Your task to perform on an android device: open app "Etsy: Buy & Sell Unique Items" (install if not already installed) Image 0: 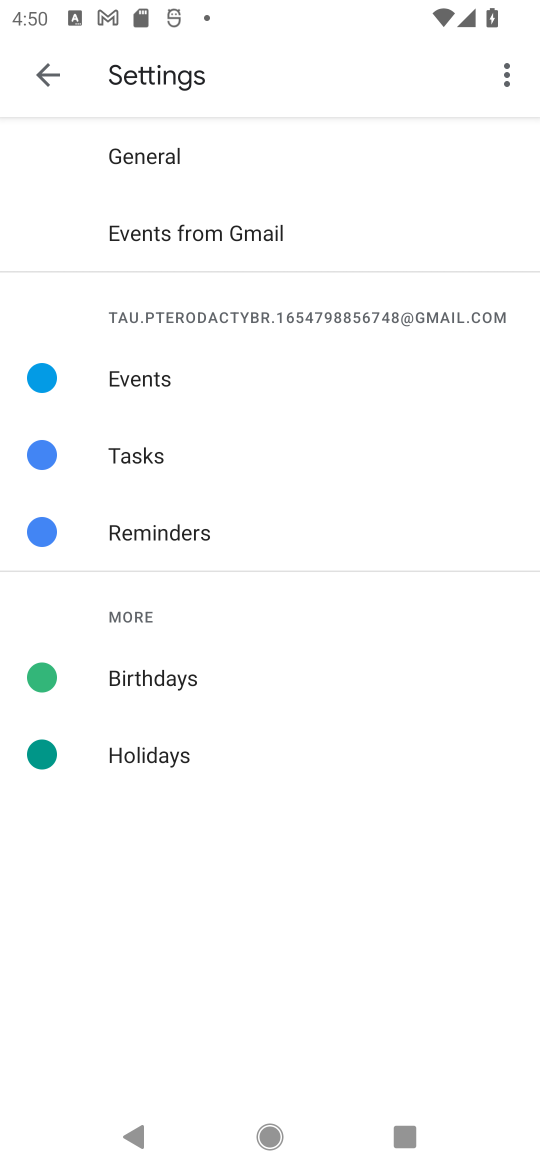
Step 0: press home button
Your task to perform on an android device: open app "Etsy: Buy & Sell Unique Items" (install if not already installed) Image 1: 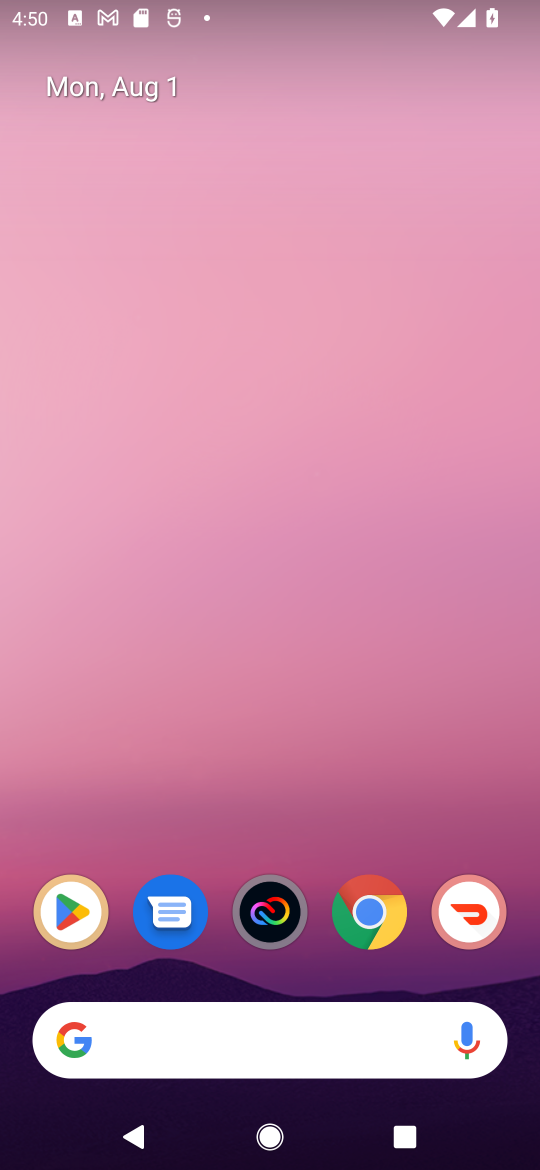
Step 1: click (68, 913)
Your task to perform on an android device: open app "Etsy: Buy & Sell Unique Items" (install if not already installed) Image 2: 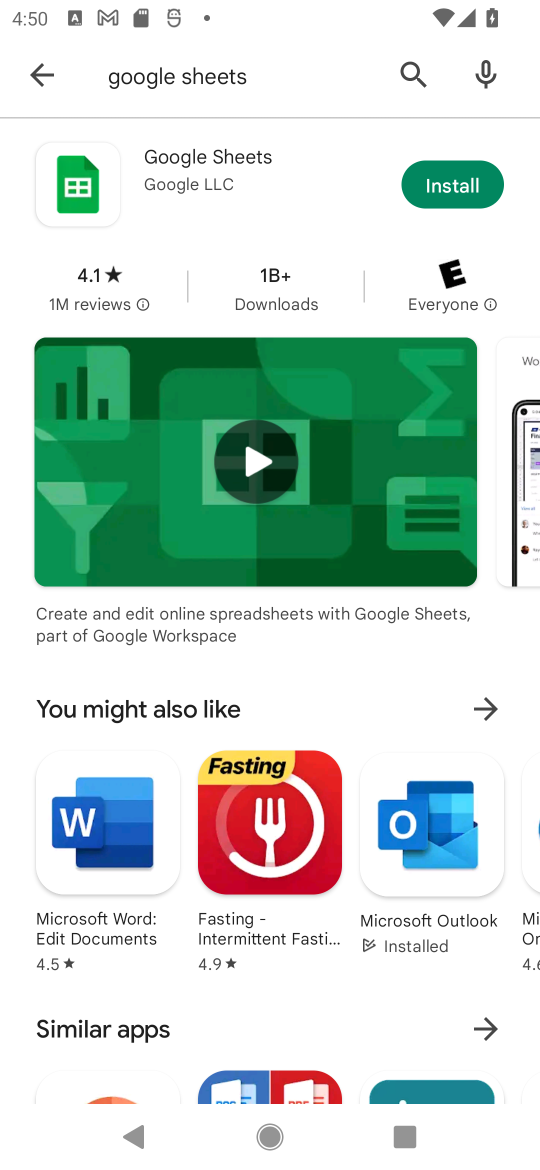
Step 2: click (401, 74)
Your task to perform on an android device: open app "Etsy: Buy & Sell Unique Items" (install if not already installed) Image 3: 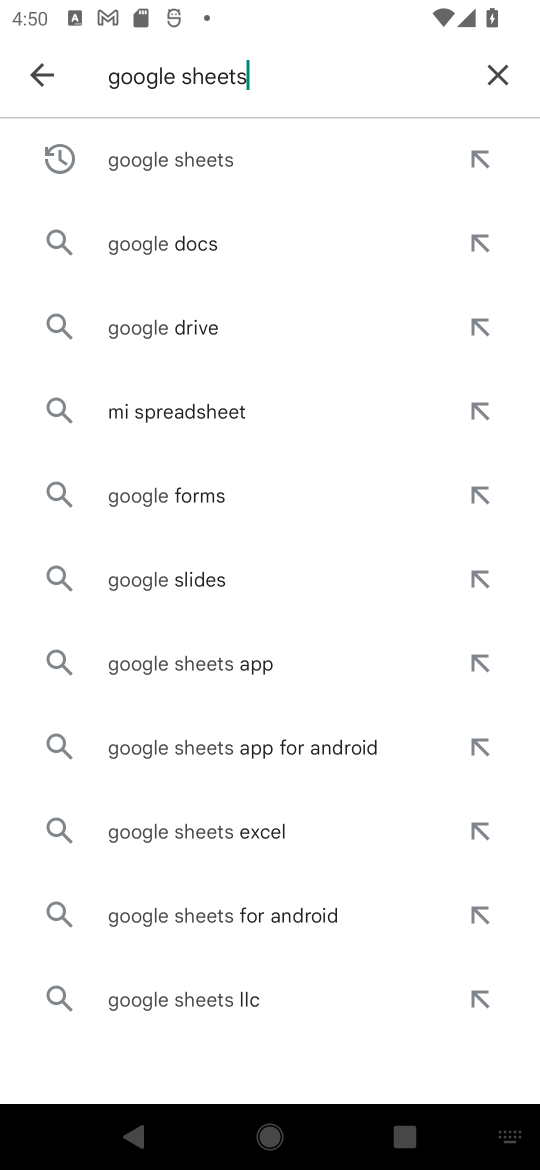
Step 3: click (487, 67)
Your task to perform on an android device: open app "Etsy: Buy & Sell Unique Items" (install if not already installed) Image 4: 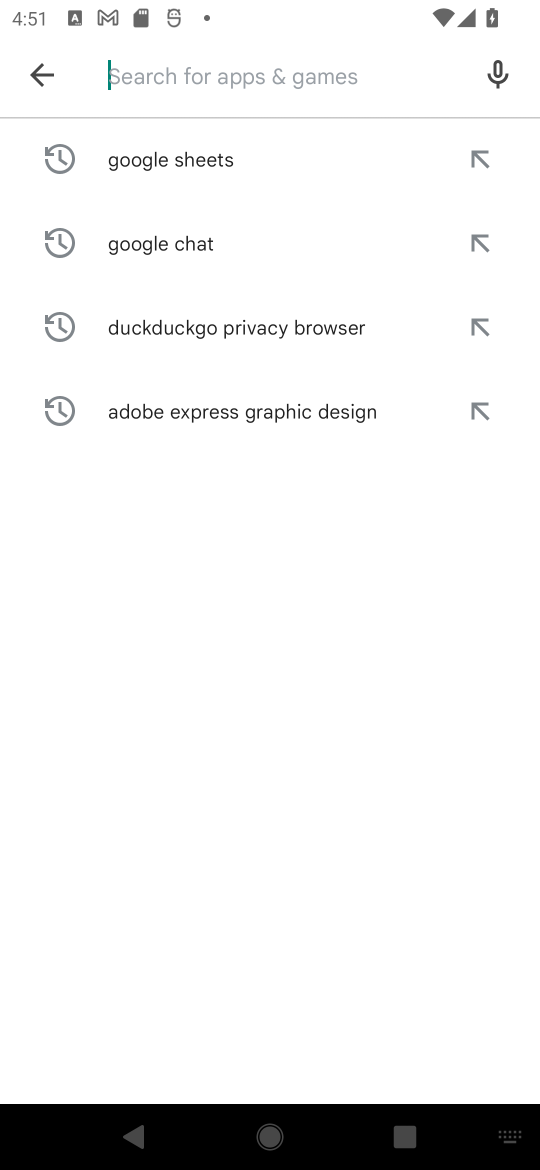
Step 4: type "Etsy: Buy & Sell Unique Items"
Your task to perform on an android device: open app "Etsy: Buy & Sell Unique Items" (install if not already installed) Image 5: 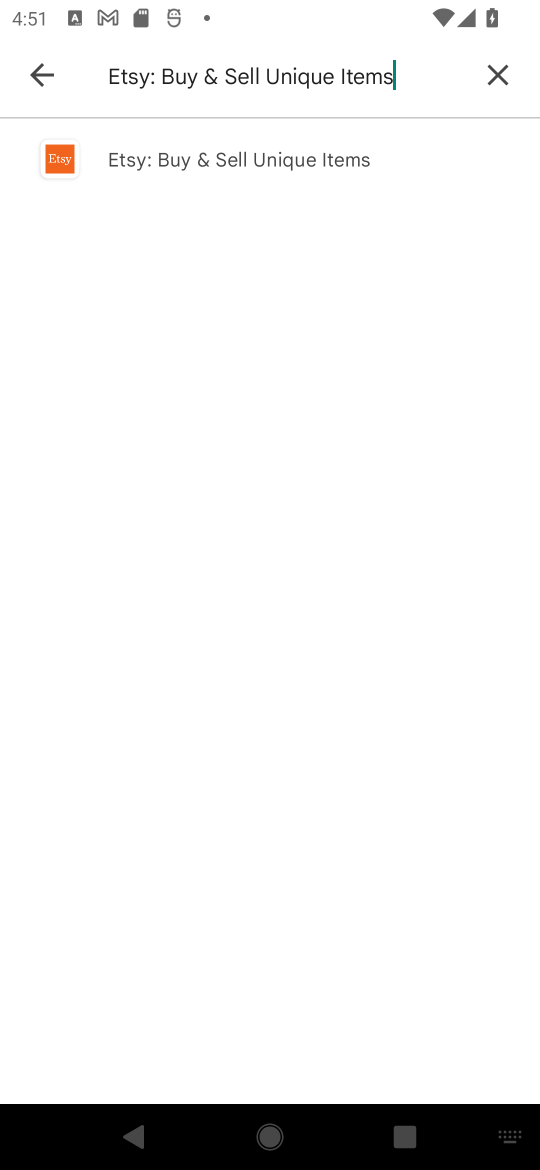
Step 5: click (197, 169)
Your task to perform on an android device: open app "Etsy: Buy & Sell Unique Items" (install if not already installed) Image 6: 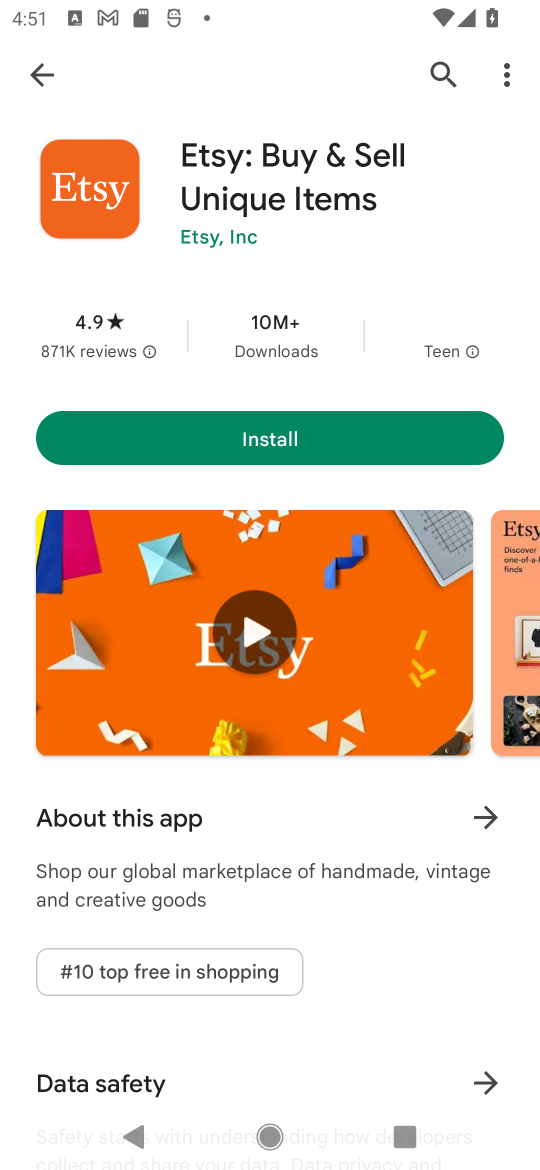
Step 6: click (214, 439)
Your task to perform on an android device: open app "Etsy: Buy & Sell Unique Items" (install if not already installed) Image 7: 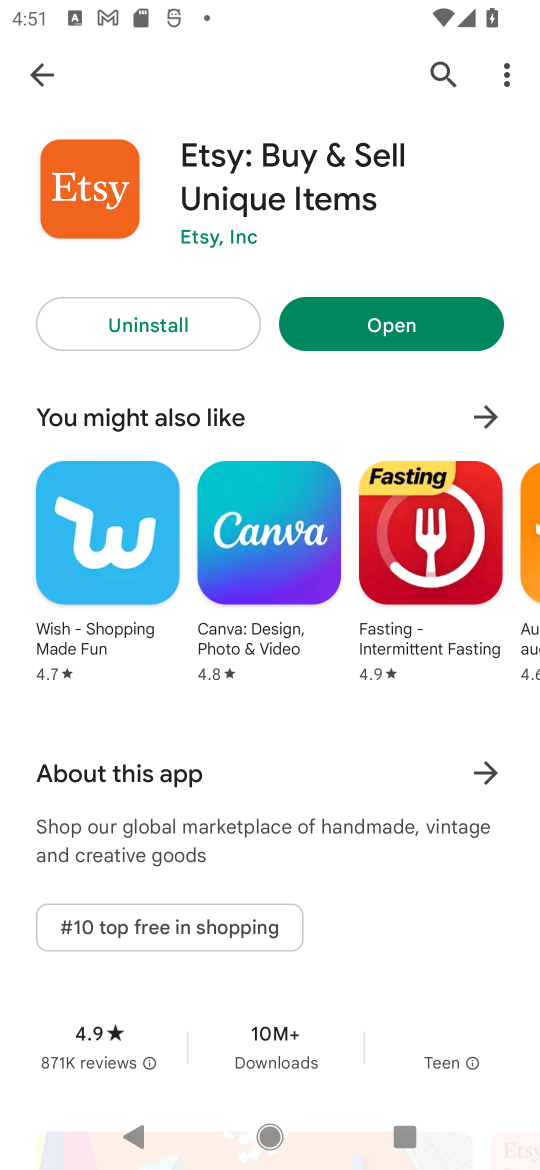
Step 7: click (387, 331)
Your task to perform on an android device: open app "Etsy: Buy & Sell Unique Items" (install if not already installed) Image 8: 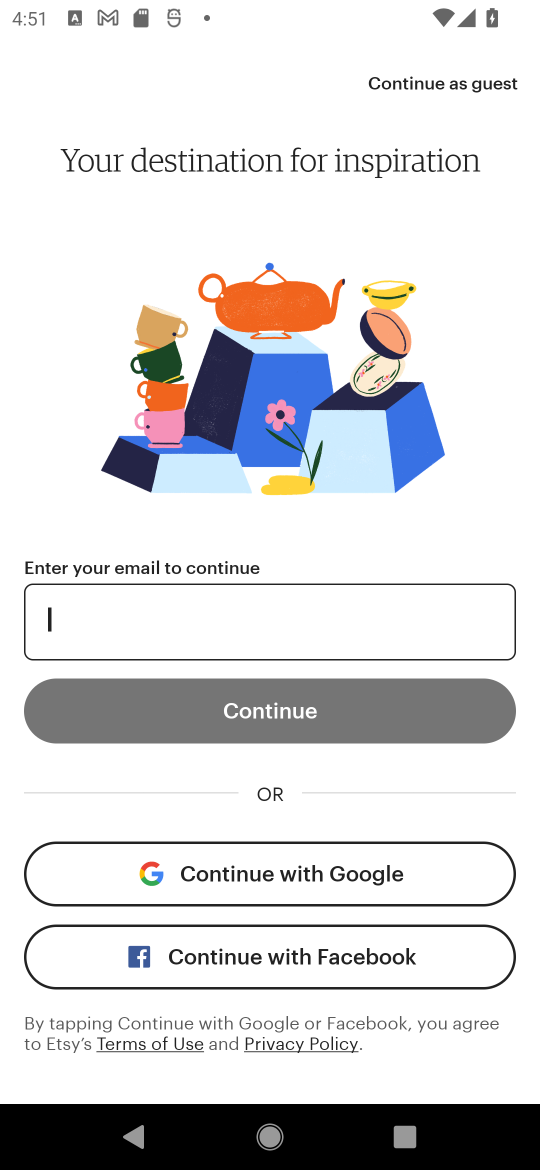
Step 8: task complete